Your task to perform on an android device: see tabs open on other devices in the chrome app Image 0: 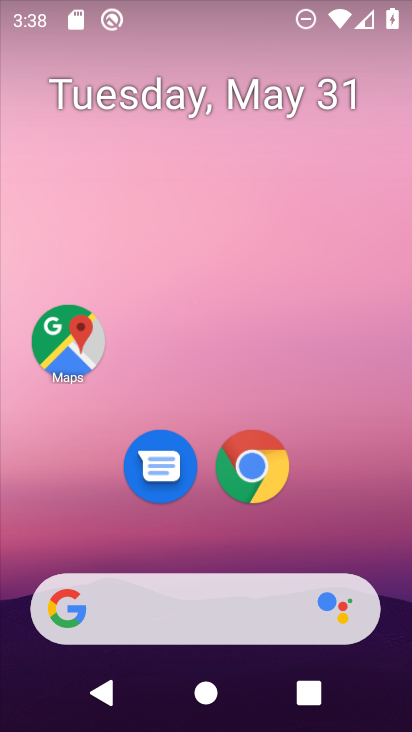
Step 0: click (262, 465)
Your task to perform on an android device: see tabs open on other devices in the chrome app Image 1: 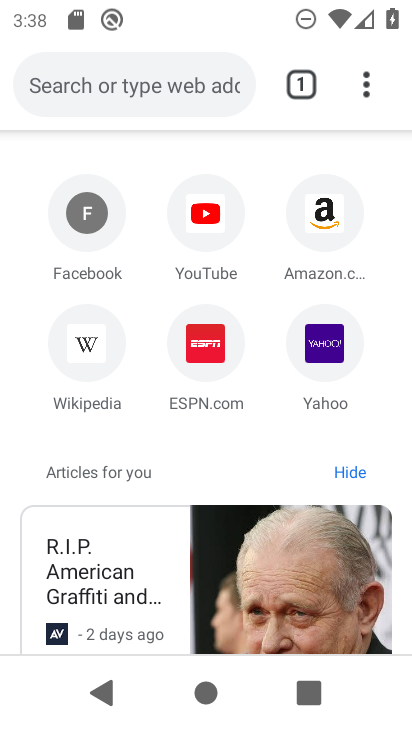
Step 1: task complete